Your task to perform on an android device: turn on notifications settings in the gmail app Image 0: 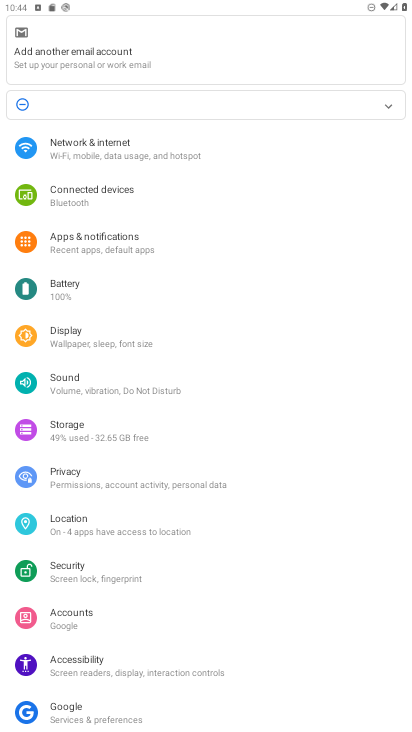
Step 0: press home button
Your task to perform on an android device: turn on notifications settings in the gmail app Image 1: 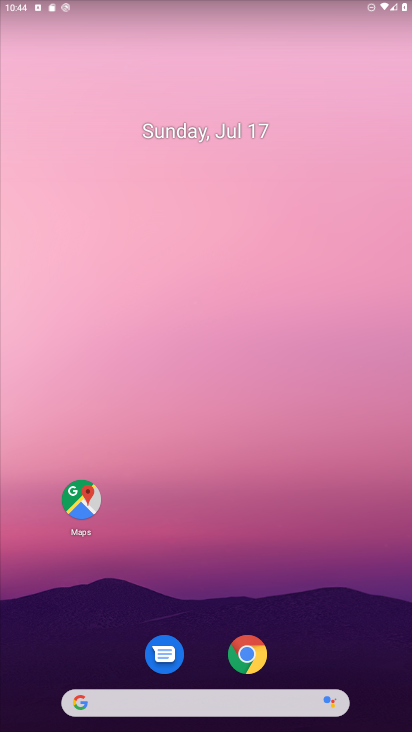
Step 1: drag from (203, 602) to (157, 138)
Your task to perform on an android device: turn on notifications settings in the gmail app Image 2: 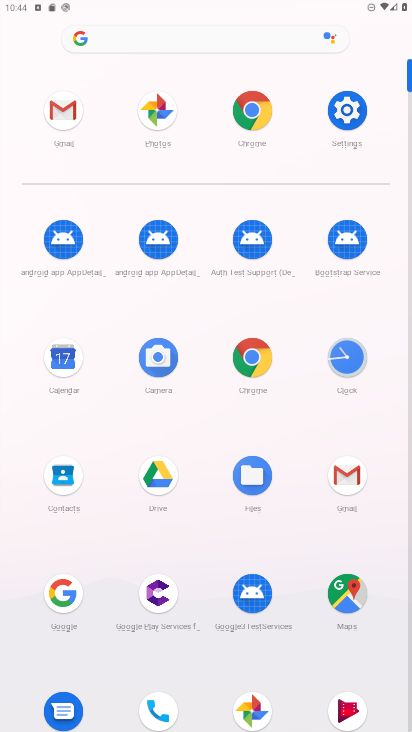
Step 2: click (25, 113)
Your task to perform on an android device: turn on notifications settings in the gmail app Image 3: 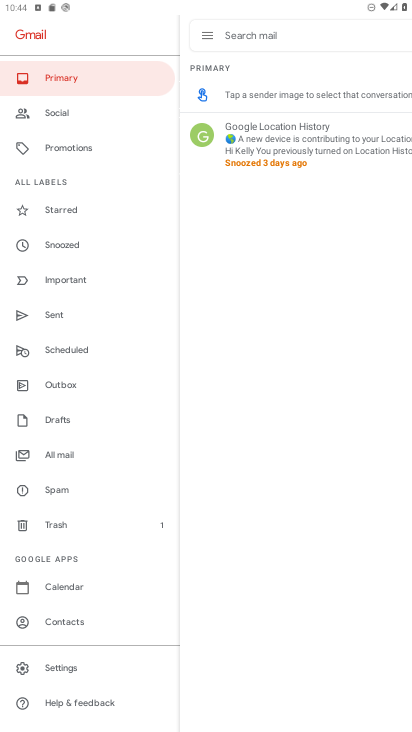
Step 3: click (89, 662)
Your task to perform on an android device: turn on notifications settings in the gmail app Image 4: 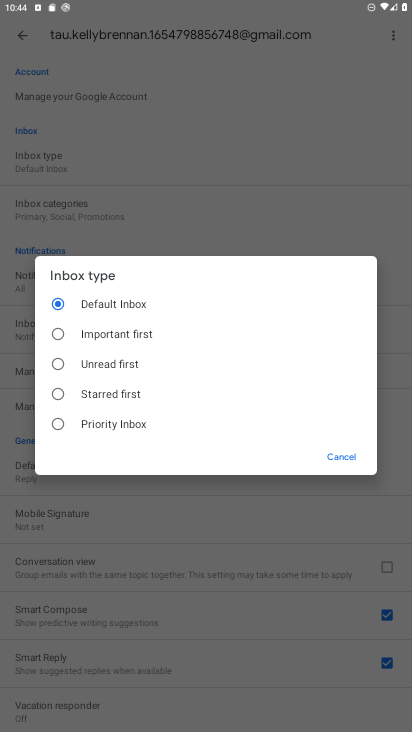
Step 4: click (343, 460)
Your task to perform on an android device: turn on notifications settings in the gmail app Image 5: 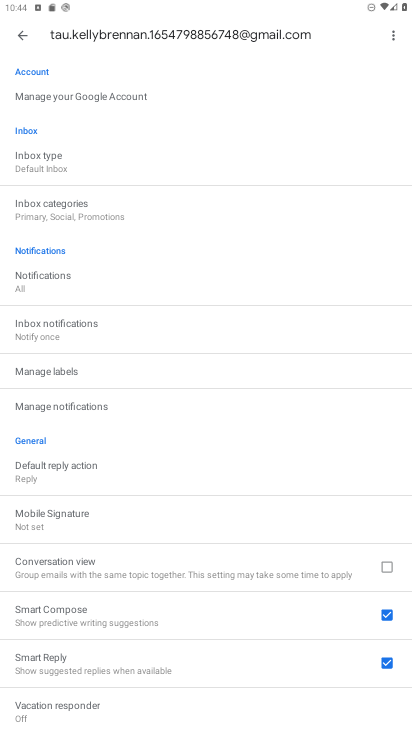
Step 5: click (113, 396)
Your task to perform on an android device: turn on notifications settings in the gmail app Image 6: 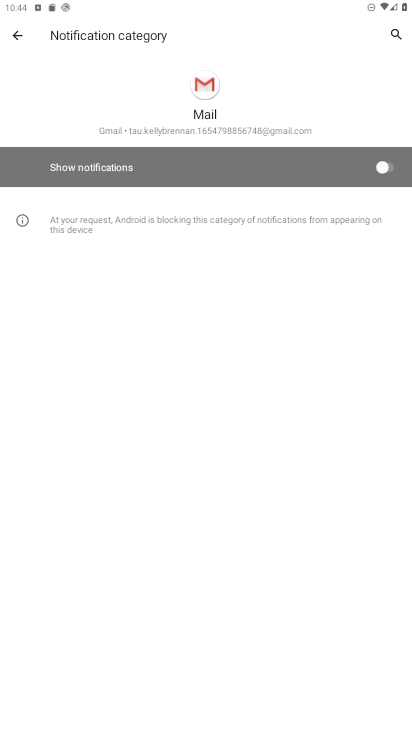
Step 6: click (380, 164)
Your task to perform on an android device: turn on notifications settings in the gmail app Image 7: 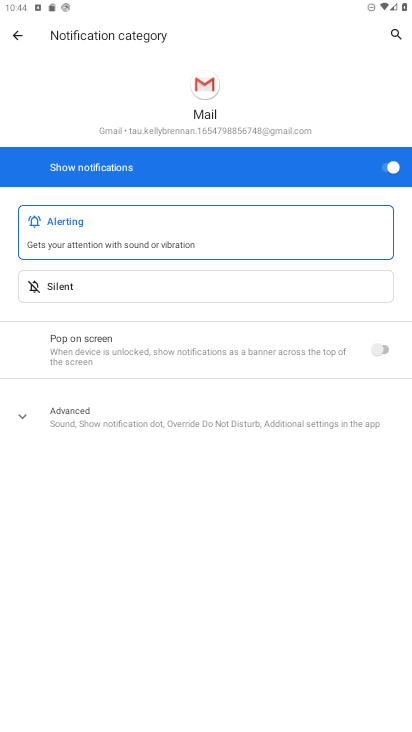
Step 7: task complete